Your task to perform on an android device: change text size in settings app Image 0: 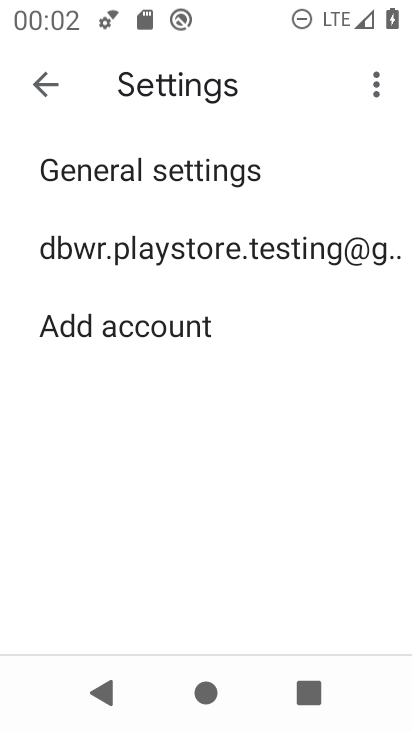
Step 0: press home button
Your task to perform on an android device: change text size in settings app Image 1: 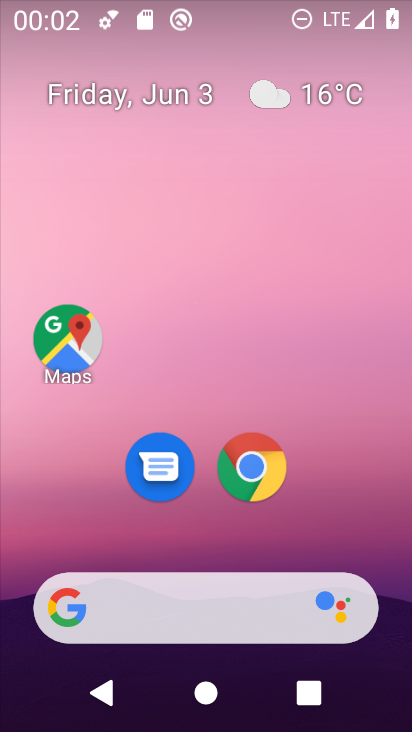
Step 1: drag from (403, 607) to (286, 117)
Your task to perform on an android device: change text size in settings app Image 2: 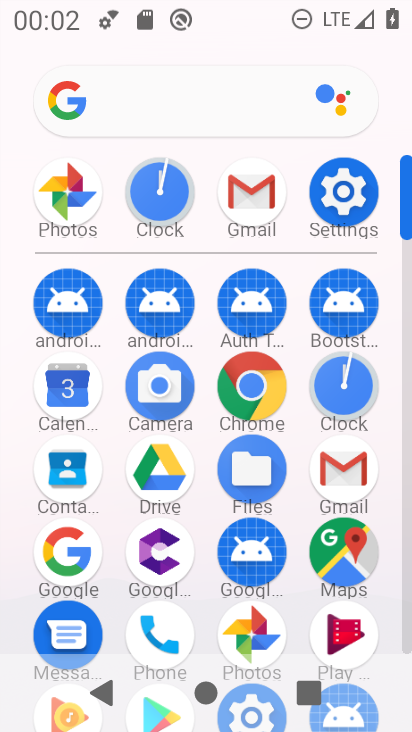
Step 2: click (408, 633)
Your task to perform on an android device: change text size in settings app Image 3: 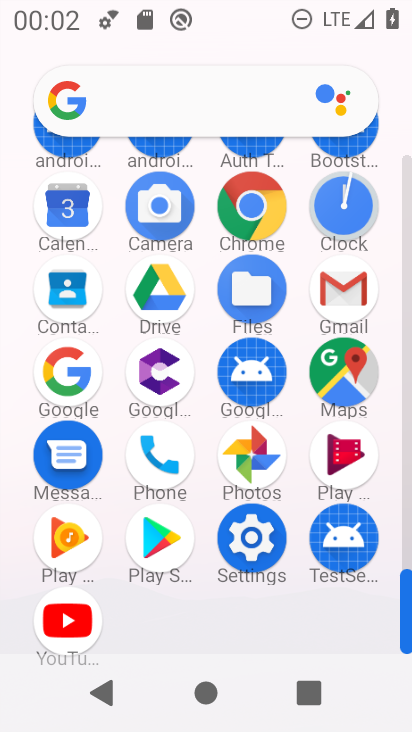
Step 3: click (246, 535)
Your task to perform on an android device: change text size in settings app Image 4: 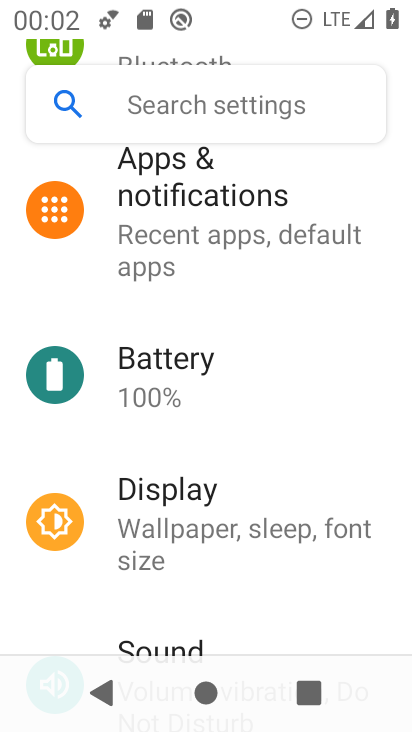
Step 4: click (167, 539)
Your task to perform on an android device: change text size in settings app Image 5: 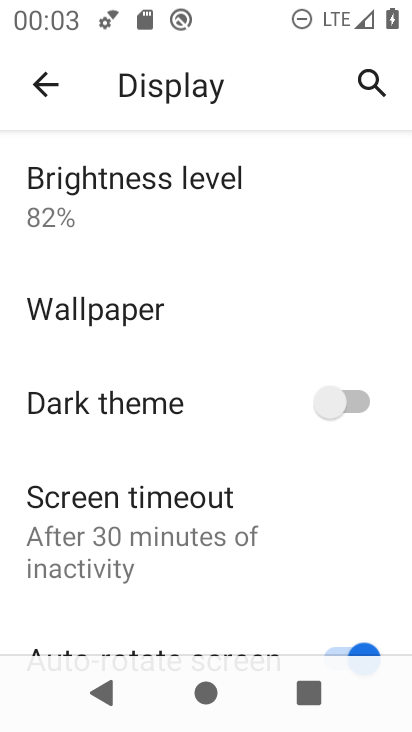
Step 5: drag from (154, 531) to (160, 203)
Your task to perform on an android device: change text size in settings app Image 6: 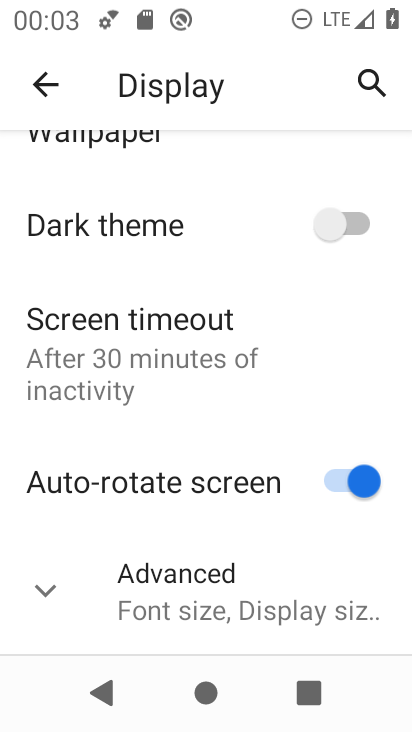
Step 6: click (47, 578)
Your task to perform on an android device: change text size in settings app Image 7: 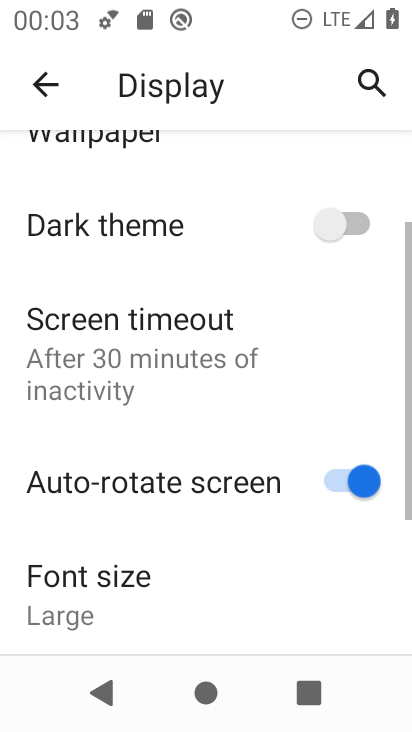
Step 7: drag from (266, 560) to (226, 216)
Your task to perform on an android device: change text size in settings app Image 8: 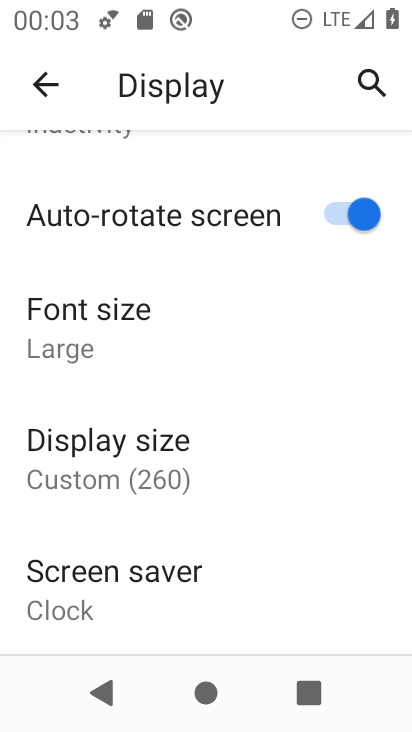
Step 8: click (95, 322)
Your task to perform on an android device: change text size in settings app Image 9: 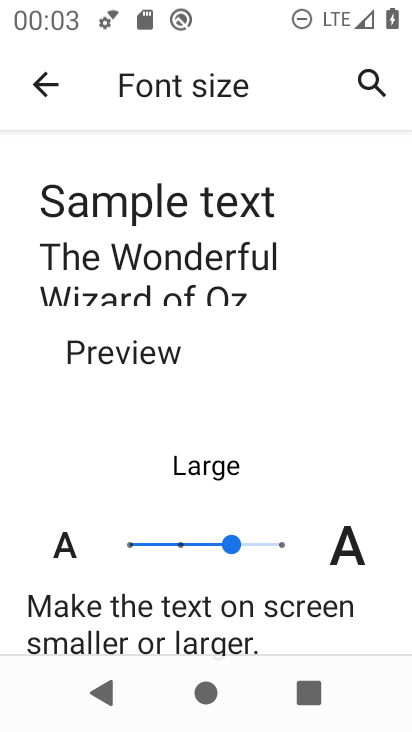
Step 9: click (178, 542)
Your task to perform on an android device: change text size in settings app Image 10: 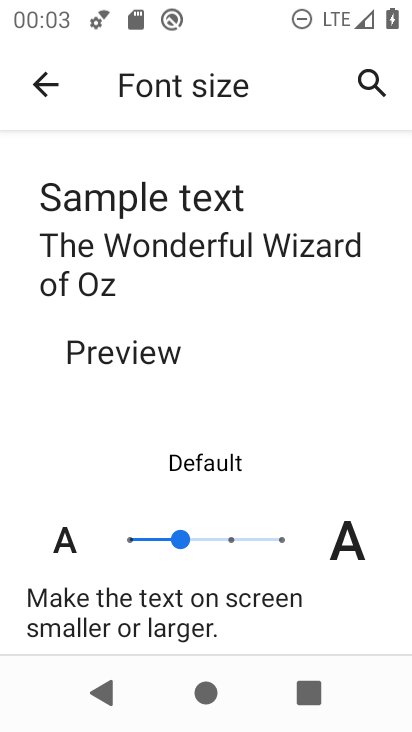
Step 10: task complete